Your task to perform on an android device: Open Google Maps and go to "Timeline" Image 0: 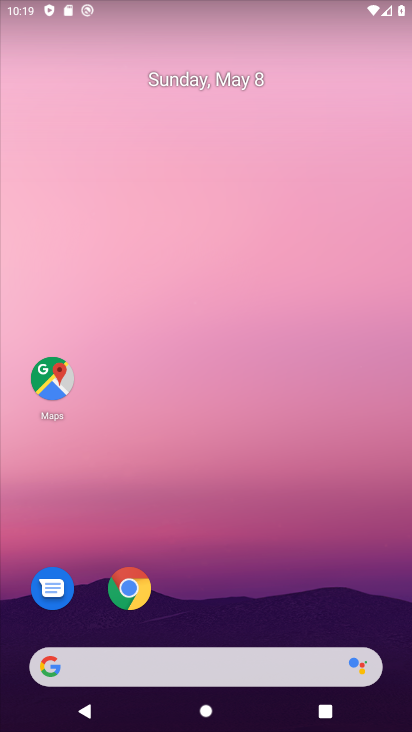
Step 0: drag from (253, 562) to (260, 40)
Your task to perform on an android device: Open Google Maps and go to "Timeline" Image 1: 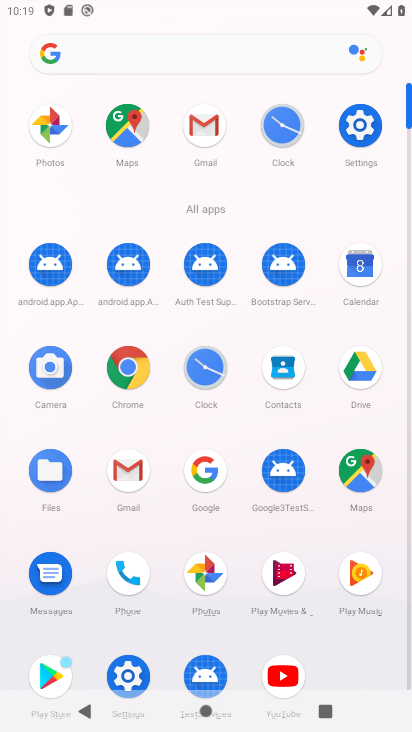
Step 1: click (123, 126)
Your task to perform on an android device: Open Google Maps and go to "Timeline" Image 2: 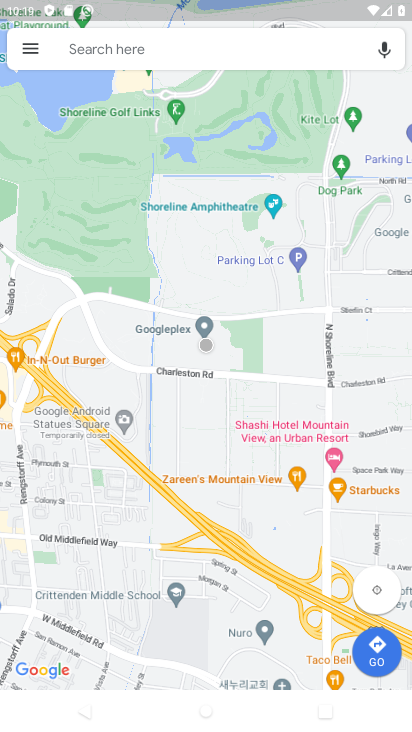
Step 2: click (29, 47)
Your task to perform on an android device: Open Google Maps and go to "Timeline" Image 3: 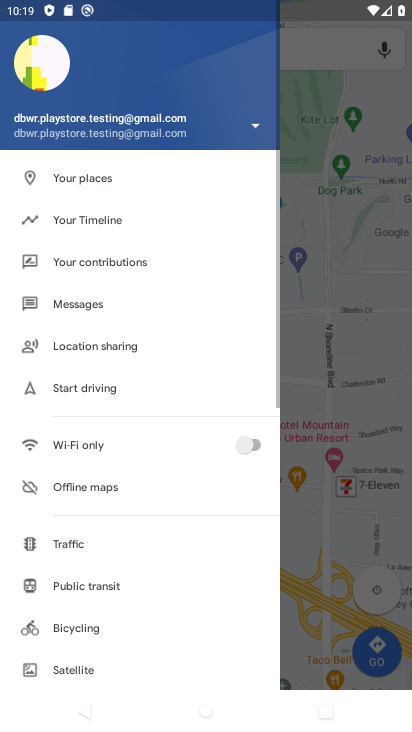
Step 3: click (117, 219)
Your task to perform on an android device: Open Google Maps and go to "Timeline" Image 4: 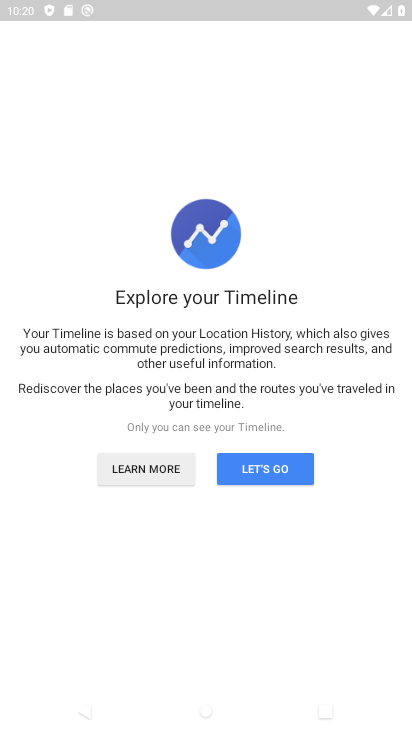
Step 4: click (276, 470)
Your task to perform on an android device: Open Google Maps and go to "Timeline" Image 5: 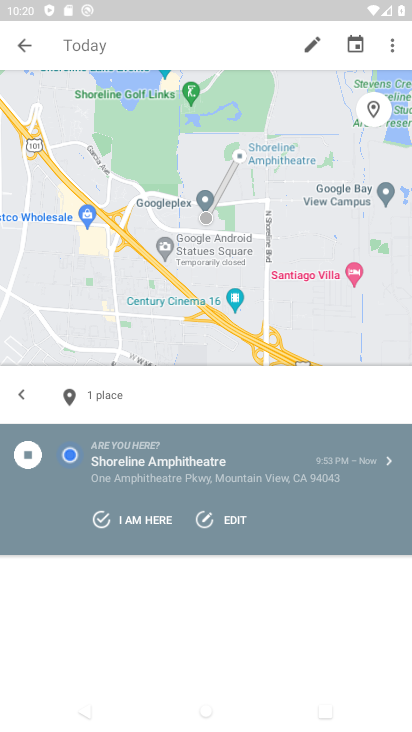
Step 5: task complete